Your task to perform on an android device: turn on sleep mode Image 0: 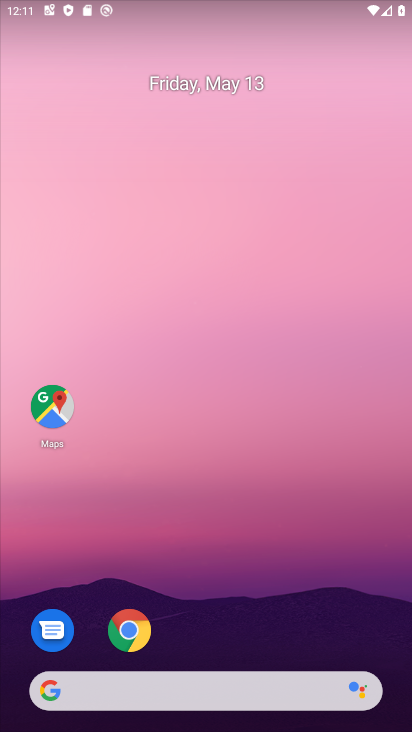
Step 0: drag from (293, 614) to (313, 192)
Your task to perform on an android device: turn on sleep mode Image 1: 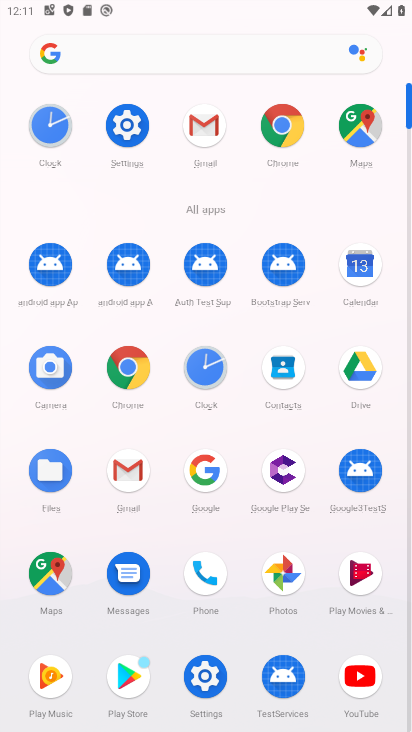
Step 1: click (126, 147)
Your task to perform on an android device: turn on sleep mode Image 2: 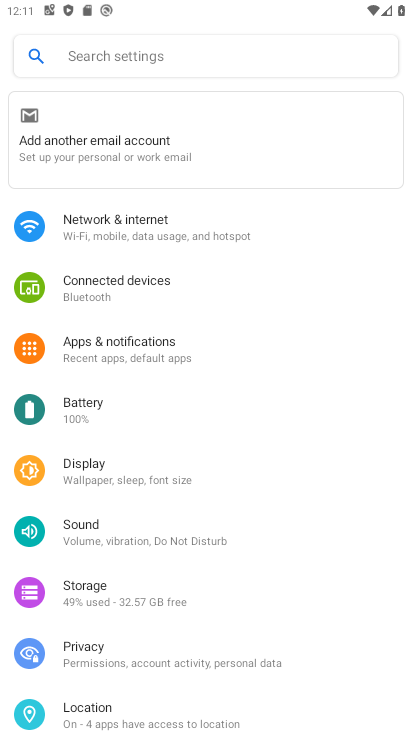
Step 2: click (280, 58)
Your task to perform on an android device: turn on sleep mode Image 3: 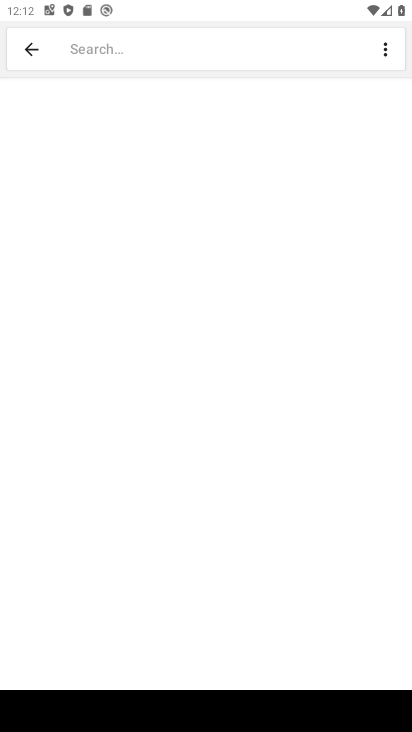
Step 3: type "sleep mode"
Your task to perform on an android device: turn on sleep mode Image 4: 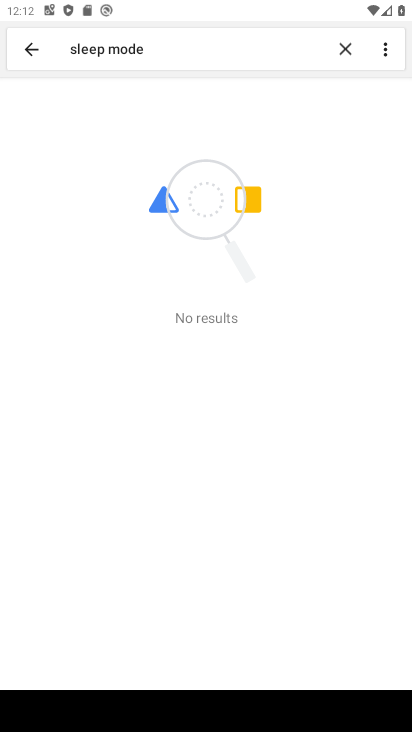
Step 4: task complete